Your task to perform on an android device: Go to network settings Image 0: 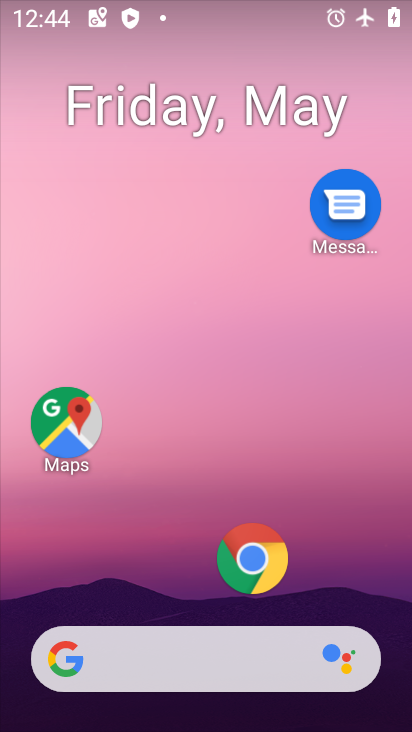
Step 0: drag from (275, 635) to (267, 111)
Your task to perform on an android device: Go to network settings Image 1: 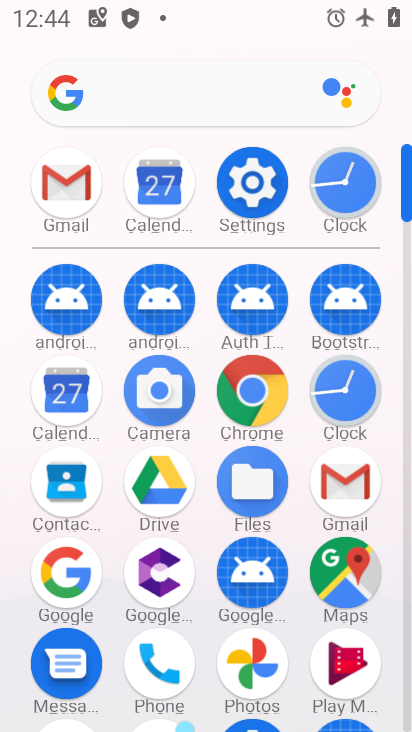
Step 1: click (248, 205)
Your task to perform on an android device: Go to network settings Image 2: 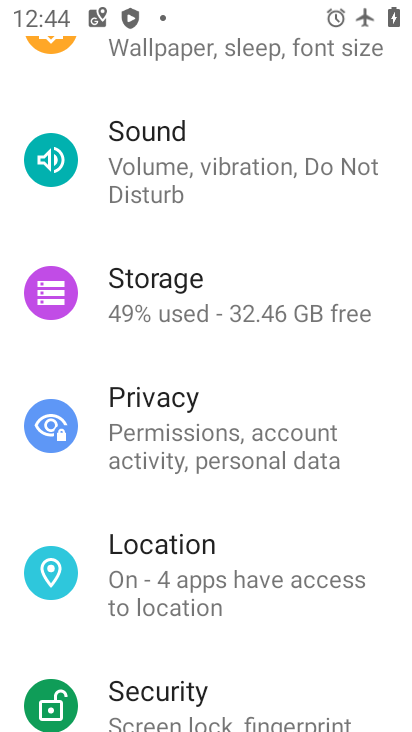
Step 2: drag from (202, 292) to (227, 581)
Your task to perform on an android device: Go to network settings Image 3: 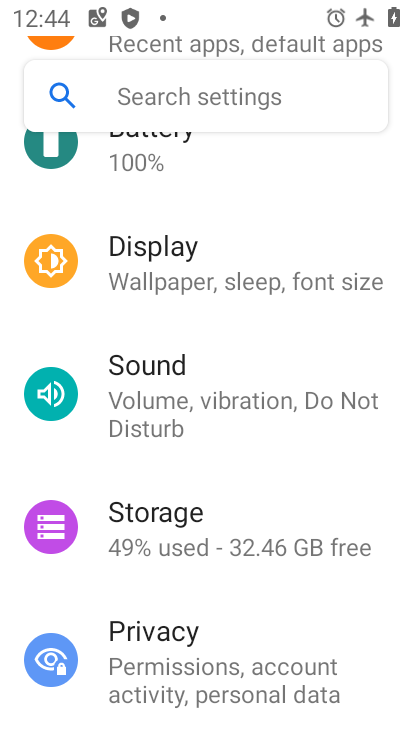
Step 3: drag from (245, 332) to (246, 528)
Your task to perform on an android device: Go to network settings Image 4: 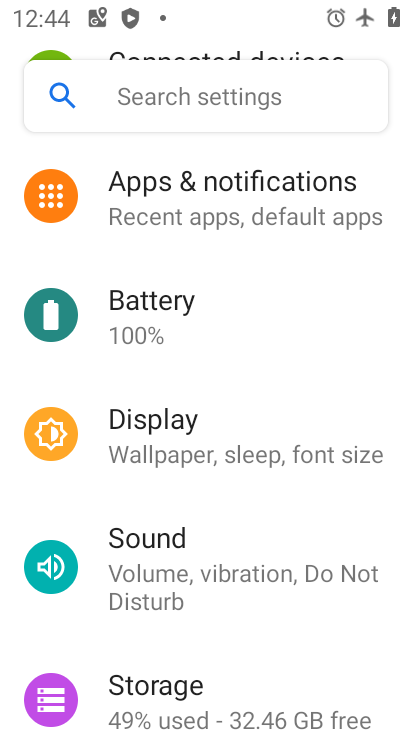
Step 4: drag from (255, 382) to (297, 561)
Your task to perform on an android device: Go to network settings Image 5: 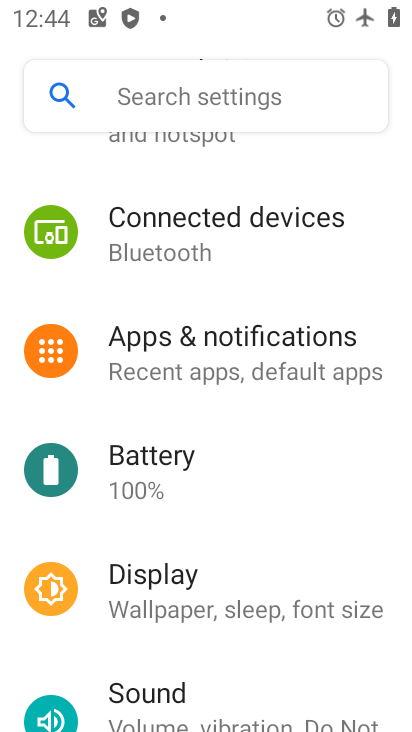
Step 5: drag from (292, 384) to (271, 603)
Your task to perform on an android device: Go to network settings Image 6: 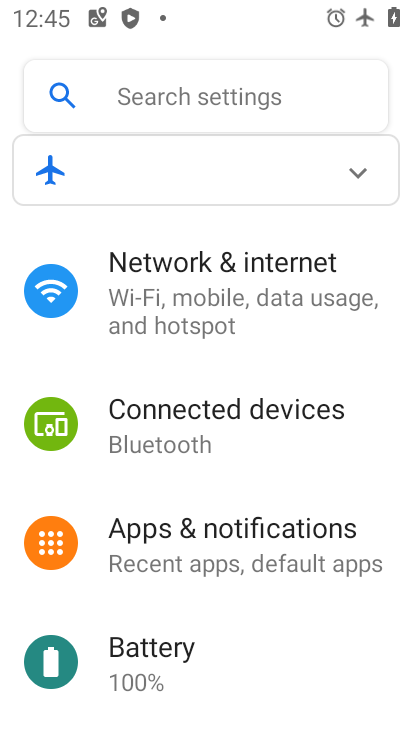
Step 6: click (252, 273)
Your task to perform on an android device: Go to network settings Image 7: 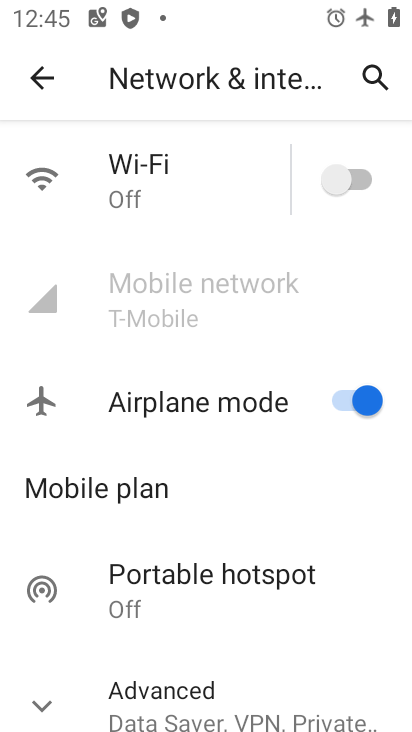
Step 7: click (243, 296)
Your task to perform on an android device: Go to network settings Image 8: 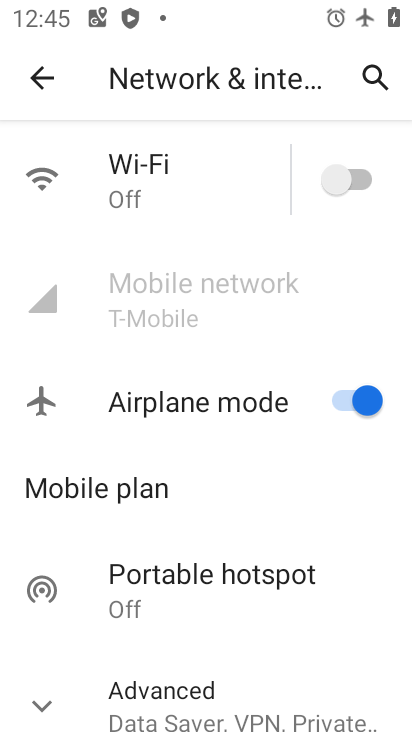
Step 8: task complete